Your task to perform on an android device: change notification settings in the gmail app Image 0: 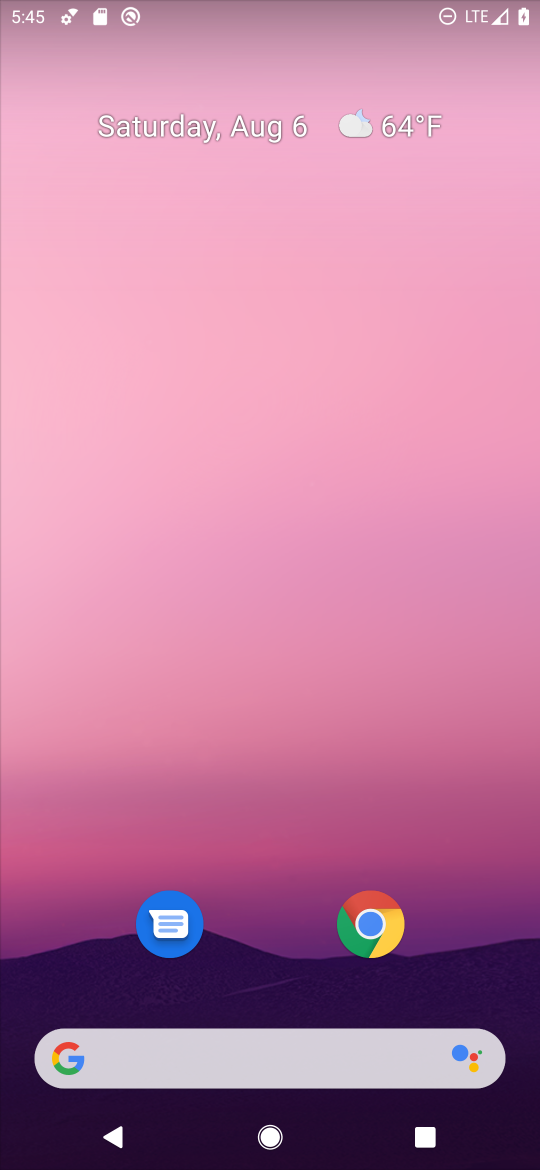
Step 0: press home button
Your task to perform on an android device: change notification settings in the gmail app Image 1: 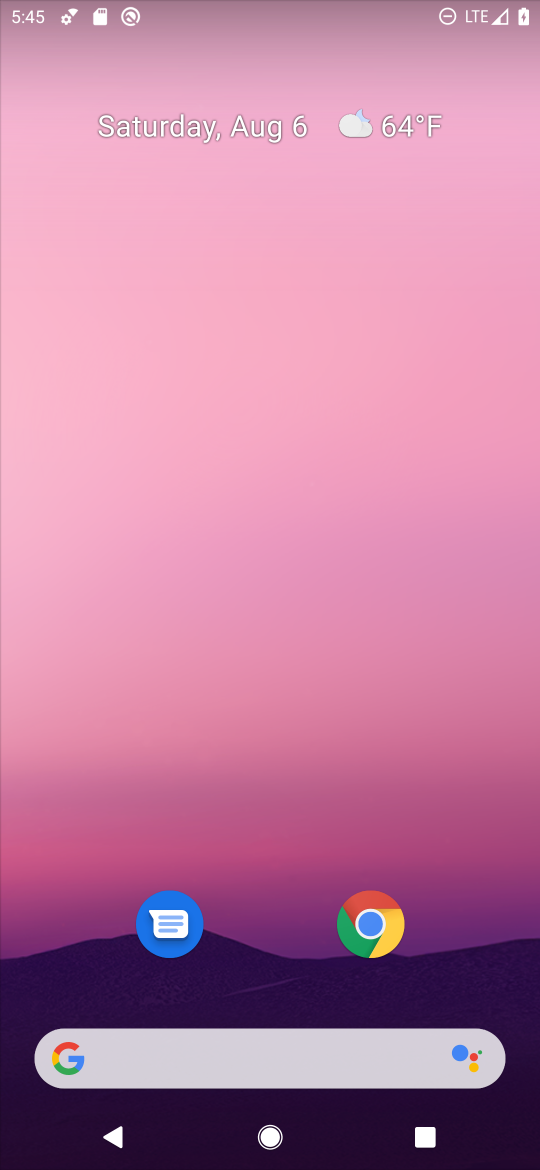
Step 1: drag from (282, 848) to (290, 193)
Your task to perform on an android device: change notification settings in the gmail app Image 2: 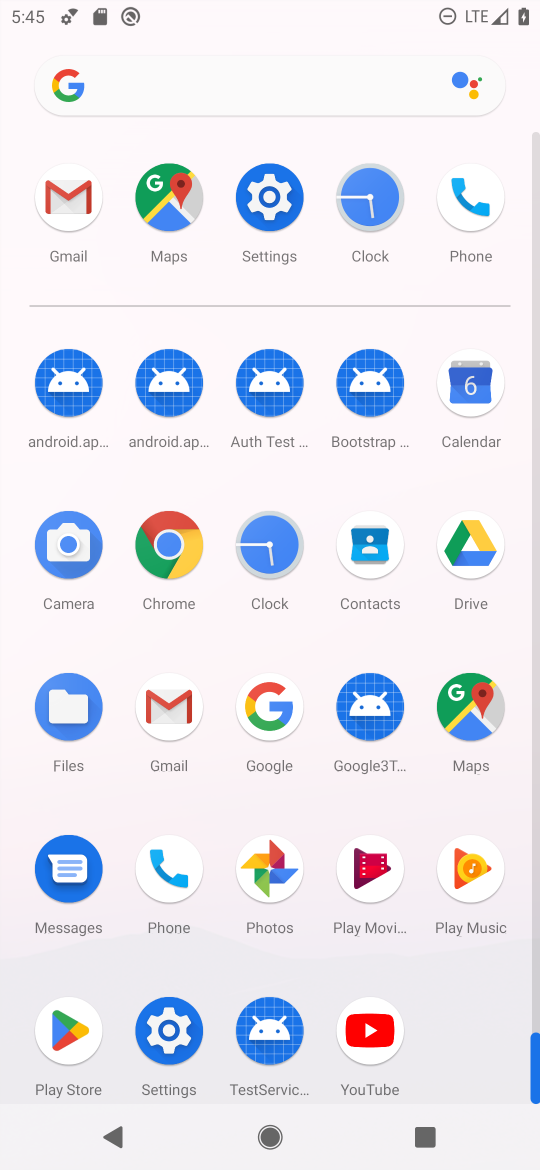
Step 2: click (73, 202)
Your task to perform on an android device: change notification settings in the gmail app Image 3: 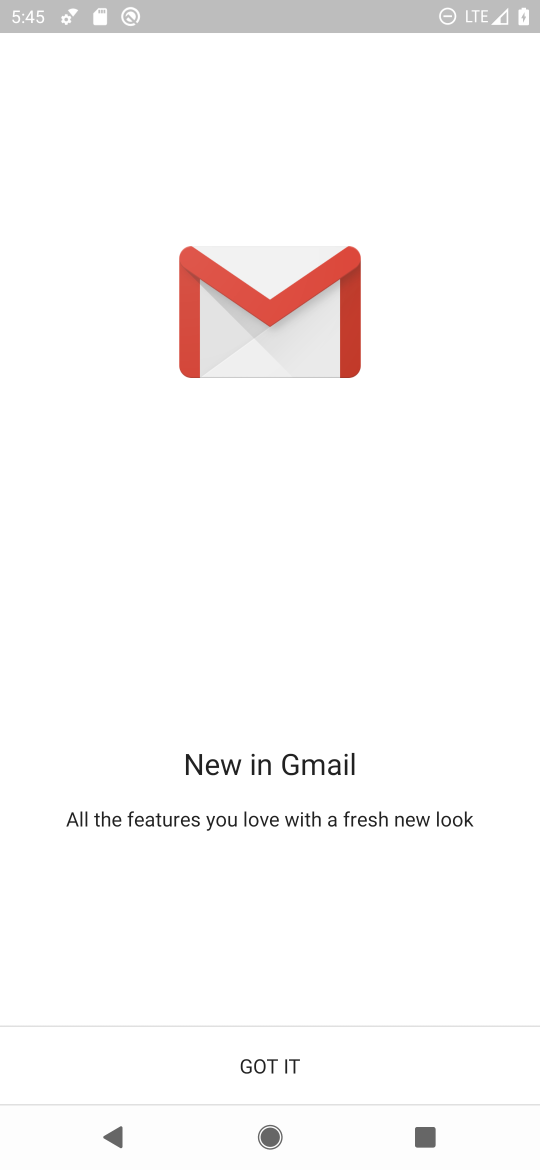
Step 3: click (270, 1066)
Your task to perform on an android device: change notification settings in the gmail app Image 4: 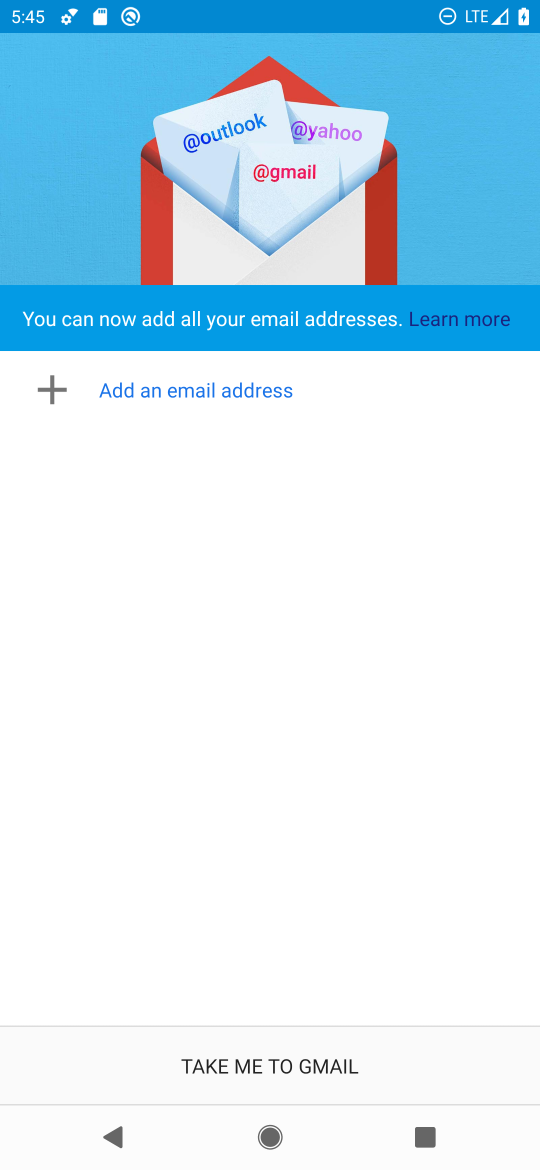
Step 4: click (270, 1059)
Your task to perform on an android device: change notification settings in the gmail app Image 5: 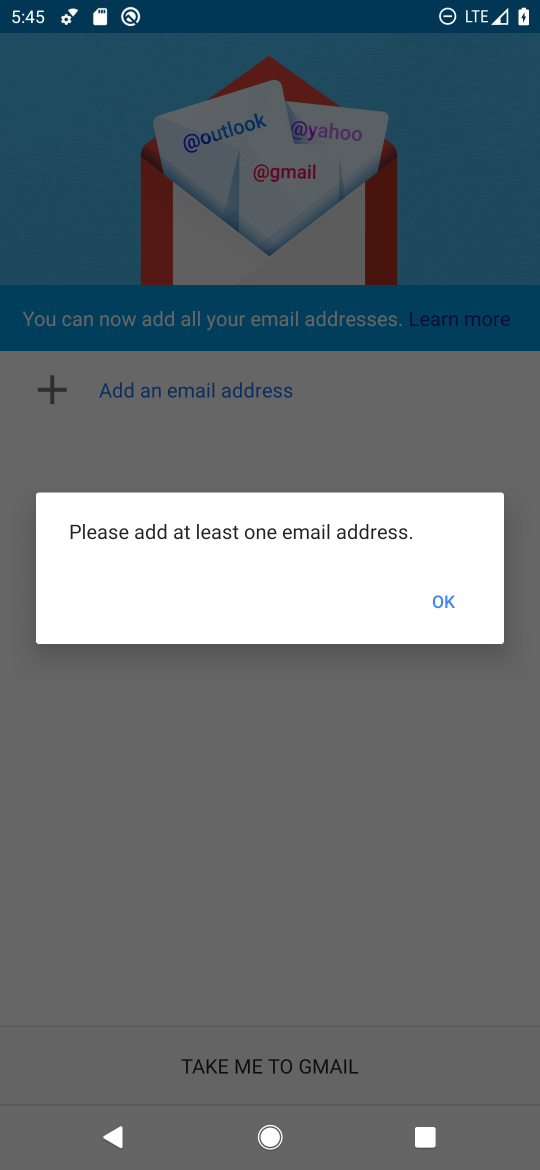
Step 5: click (446, 594)
Your task to perform on an android device: change notification settings in the gmail app Image 6: 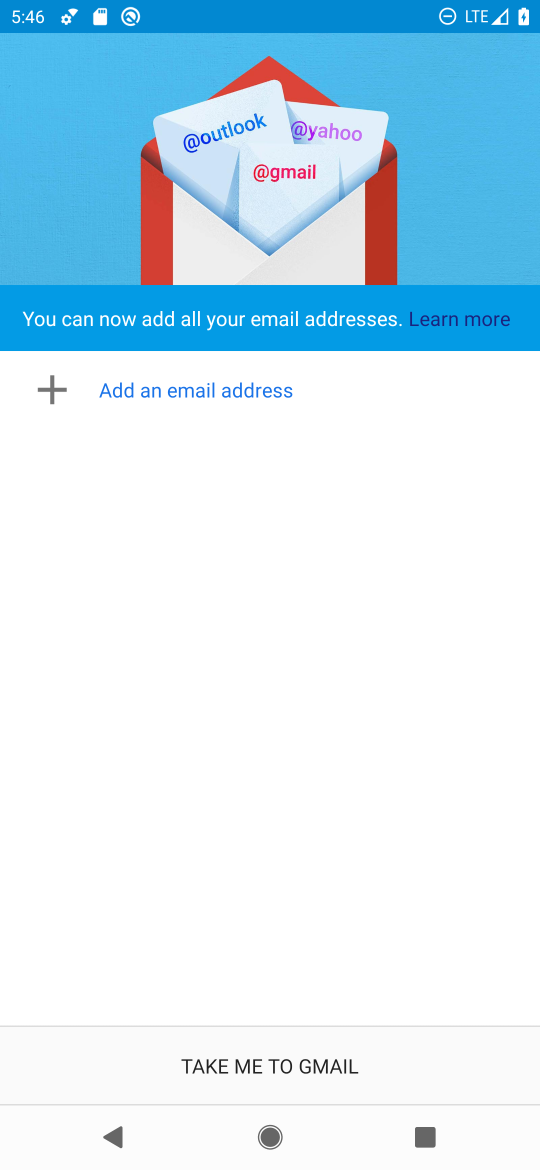
Step 6: task complete